Your task to perform on an android device: Look up the best rated coffee maker on Lowe's. Image 0: 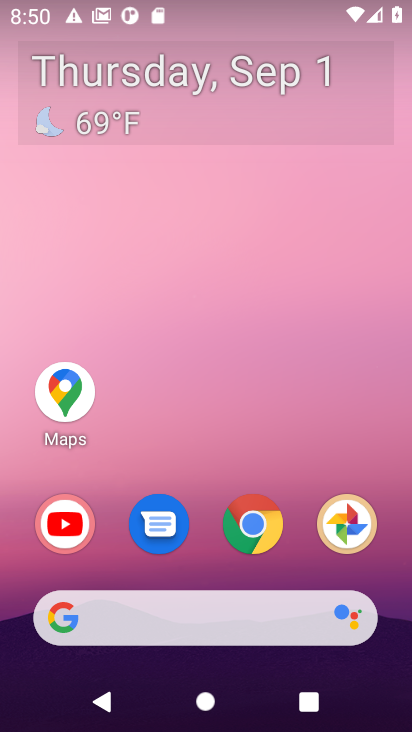
Step 0: click (228, 531)
Your task to perform on an android device: Look up the best rated coffee maker on Lowe's. Image 1: 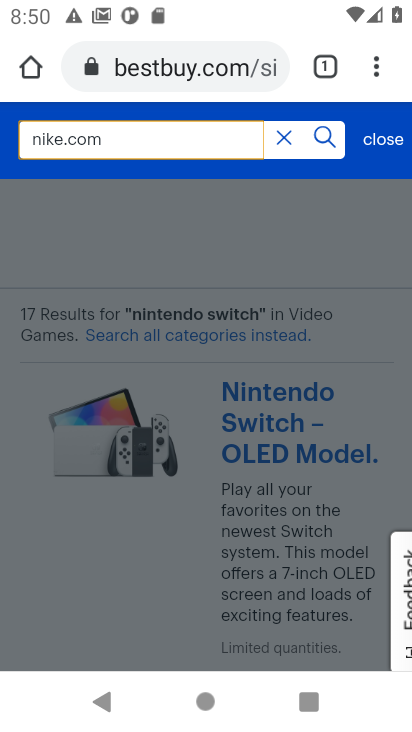
Step 1: click (188, 81)
Your task to perform on an android device: Look up the best rated coffee maker on Lowe's. Image 2: 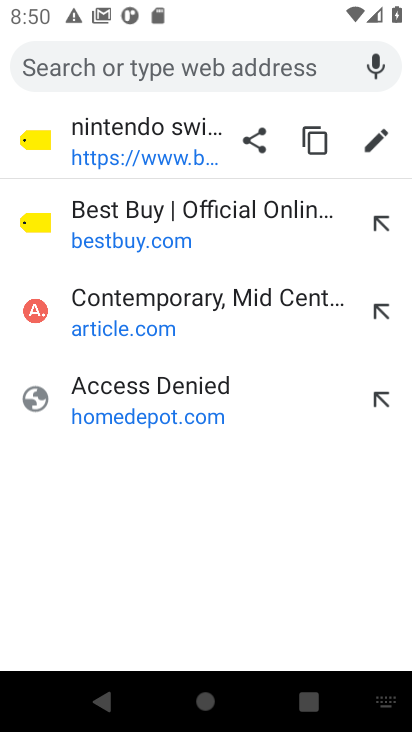
Step 2: type "lowes"
Your task to perform on an android device: Look up the best rated coffee maker on Lowe's. Image 3: 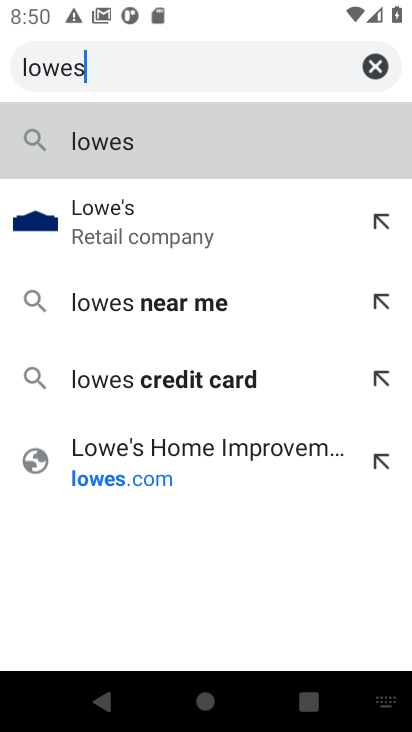
Step 3: click (195, 221)
Your task to perform on an android device: Look up the best rated coffee maker on Lowe's. Image 4: 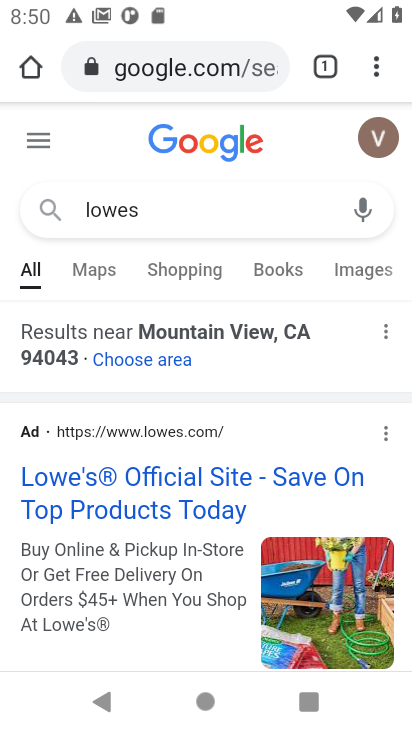
Step 4: drag from (186, 585) to (188, 73)
Your task to perform on an android device: Look up the best rated coffee maker on Lowe's. Image 5: 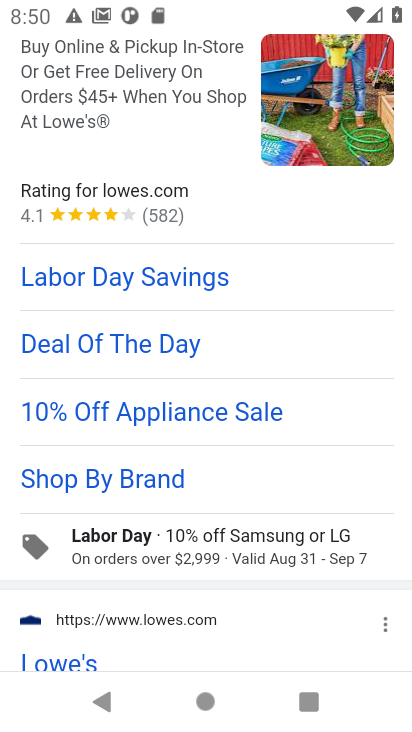
Step 5: drag from (192, 608) to (174, 255)
Your task to perform on an android device: Look up the best rated coffee maker on Lowe's. Image 6: 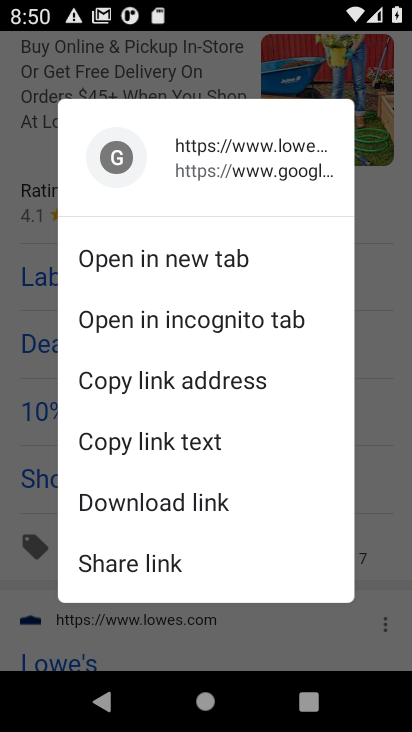
Step 6: click (270, 644)
Your task to perform on an android device: Look up the best rated coffee maker on Lowe's. Image 7: 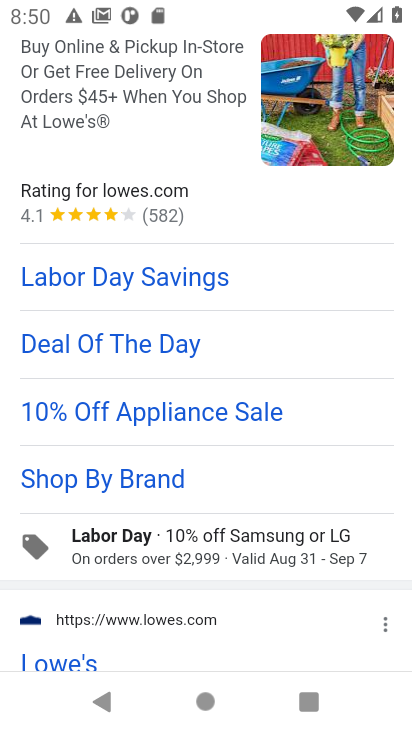
Step 7: drag from (245, 417) to (246, 348)
Your task to perform on an android device: Look up the best rated coffee maker on Lowe's. Image 8: 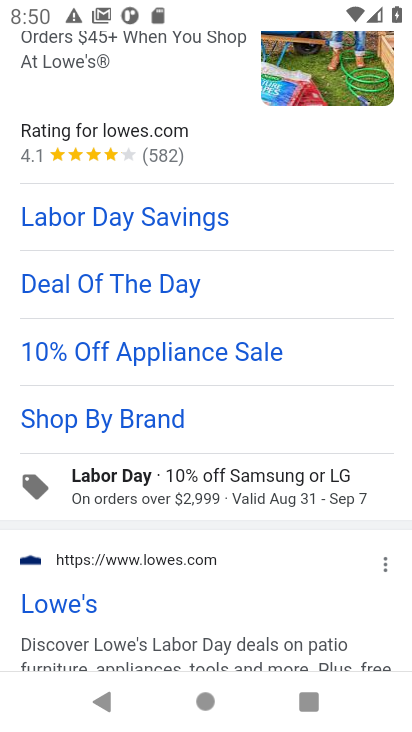
Step 8: click (69, 601)
Your task to perform on an android device: Look up the best rated coffee maker on Lowe's. Image 9: 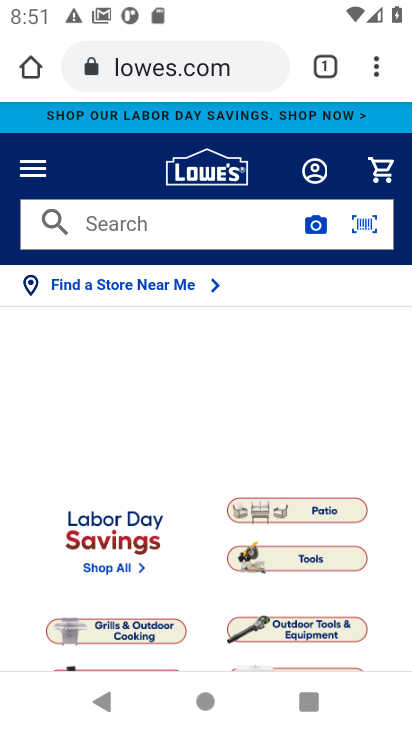
Step 9: click (171, 230)
Your task to perform on an android device: Look up the best rated coffee maker on Lowe's. Image 10: 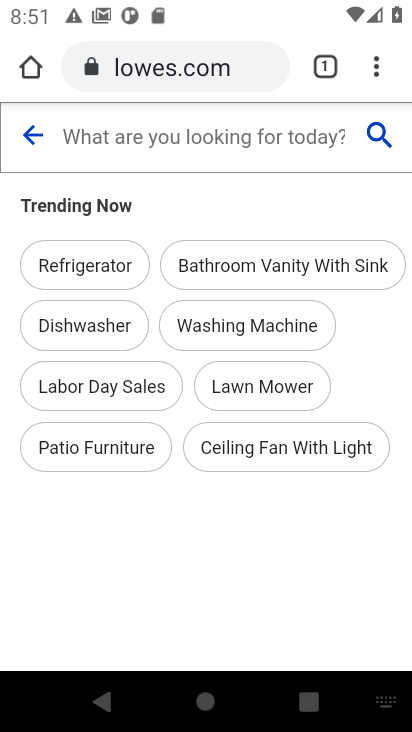
Step 10: type "best rated coffee maker"
Your task to perform on an android device: Look up the best rated coffee maker on Lowe's. Image 11: 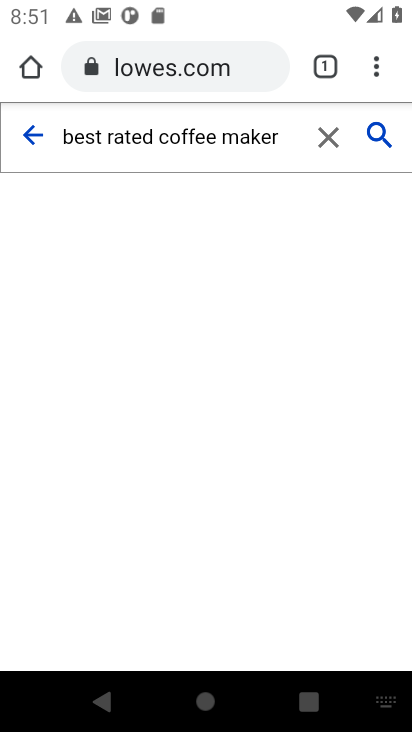
Step 11: press enter
Your task to perform on an android device: Look up the best rated coffee maker on Lowe's. Image 12: 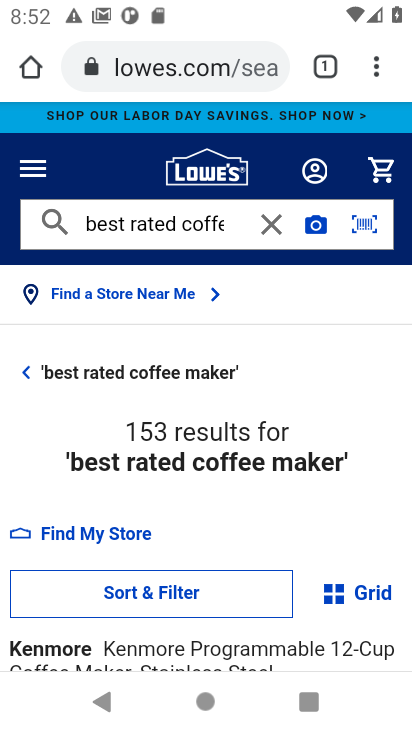
Step 12: task complete